Your task to perform on an android device: Show me the alarms in the clock app Image 0: 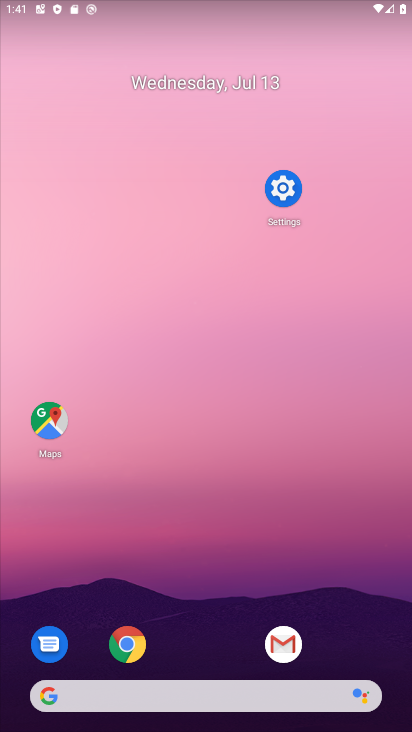
Step 0: drag from (244, 712) to (268, 109)
Your task to perform on an android device: Show me the alarms in the clock app Image 1: 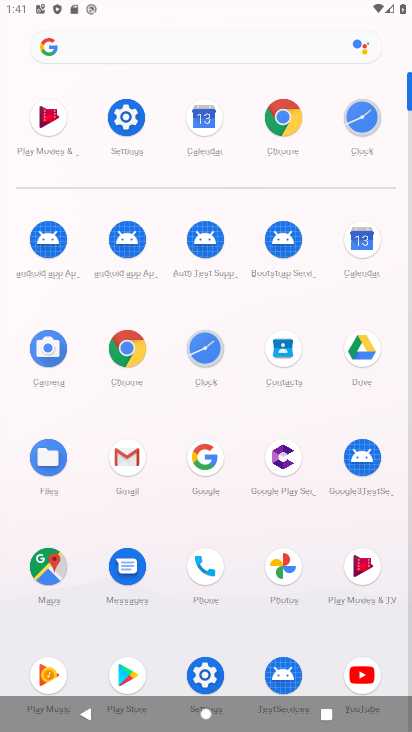
Step 1: click (198, 360)
Your task to perform on an android device: Show me the alarms in the clock app Image 2: 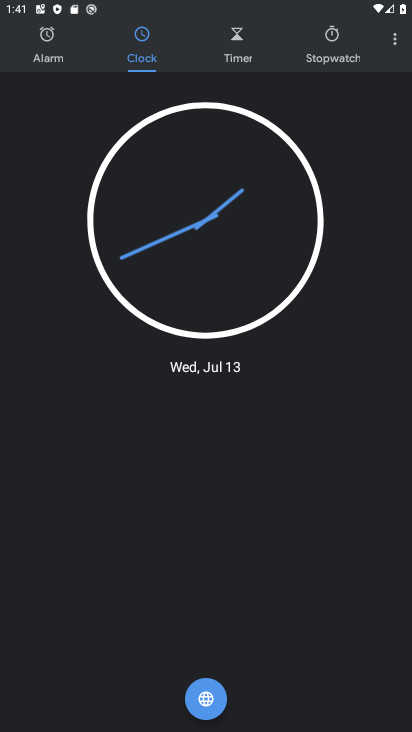
Step 2: click (396, 52)
Your task to perform on an android device: Show me the alarms in the clock app Image 3: 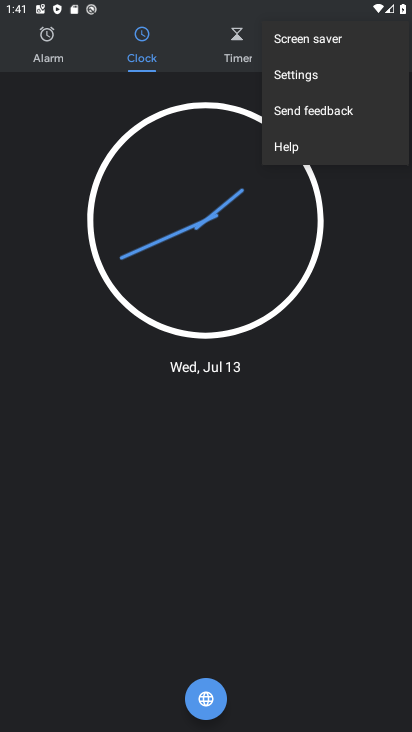
Step 3: click (67, 68)
Your task to perform on an android device: Show me the alarms in the clock app Image 4: 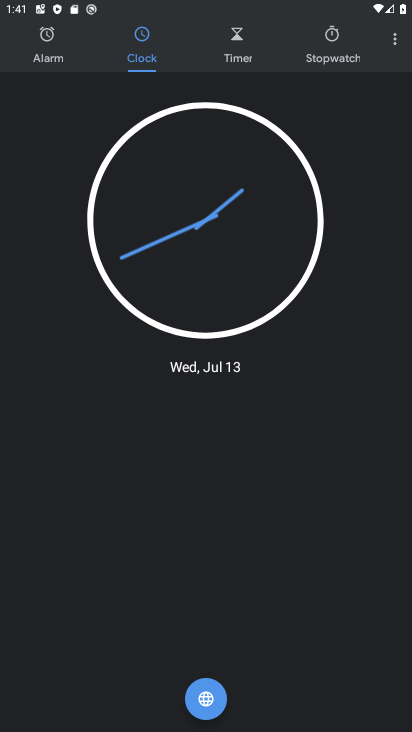
Step 4: click (56, 56)
Your task to perform on an android device: Show me the alarms in the clock app Image 5: 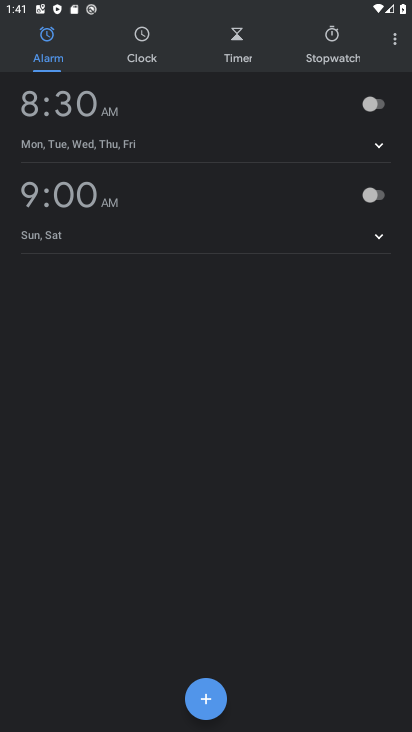
Step 5: click (368, 100)
Your task to perform on an android device: Show me the alarms in the clock app Image 6: 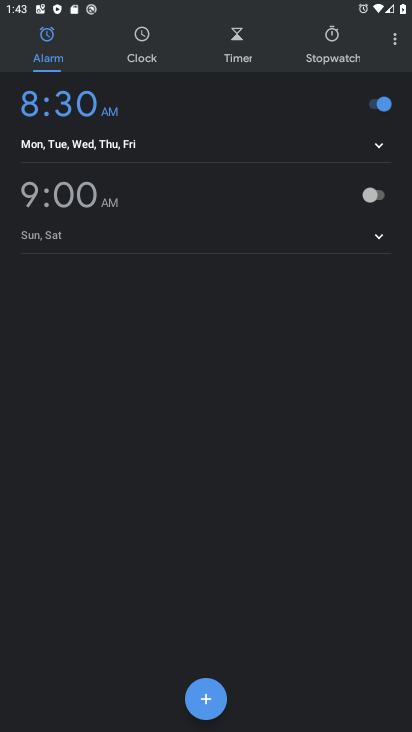
Step 6: task complete